Your task to perform on an android device: allow cookies in the chrome app Image 0: 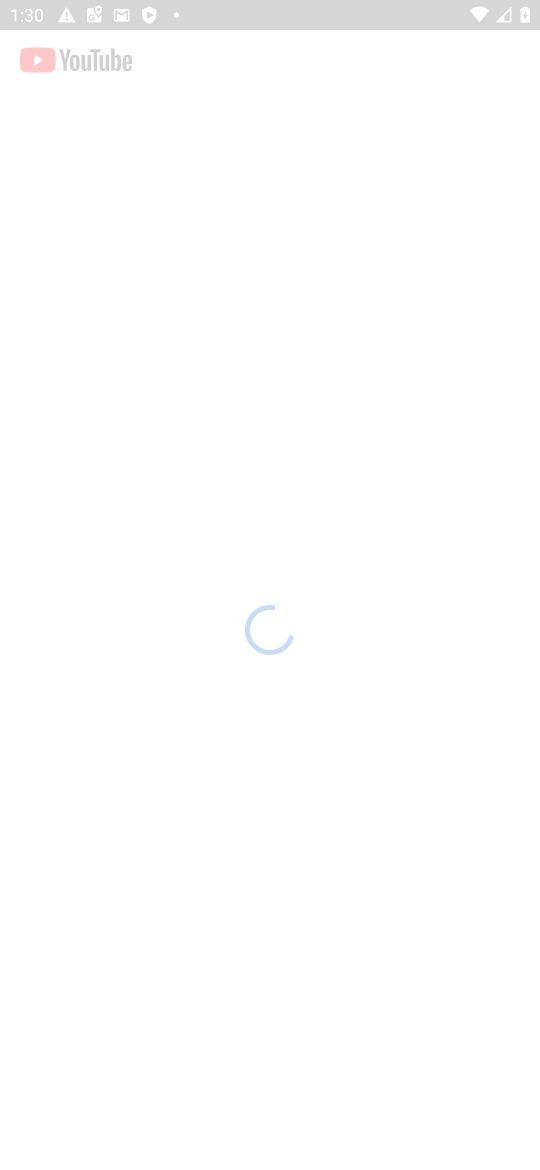
Step 0: press home button
Your task to perform on an android device: allow cookies in the chrome app Image 1: 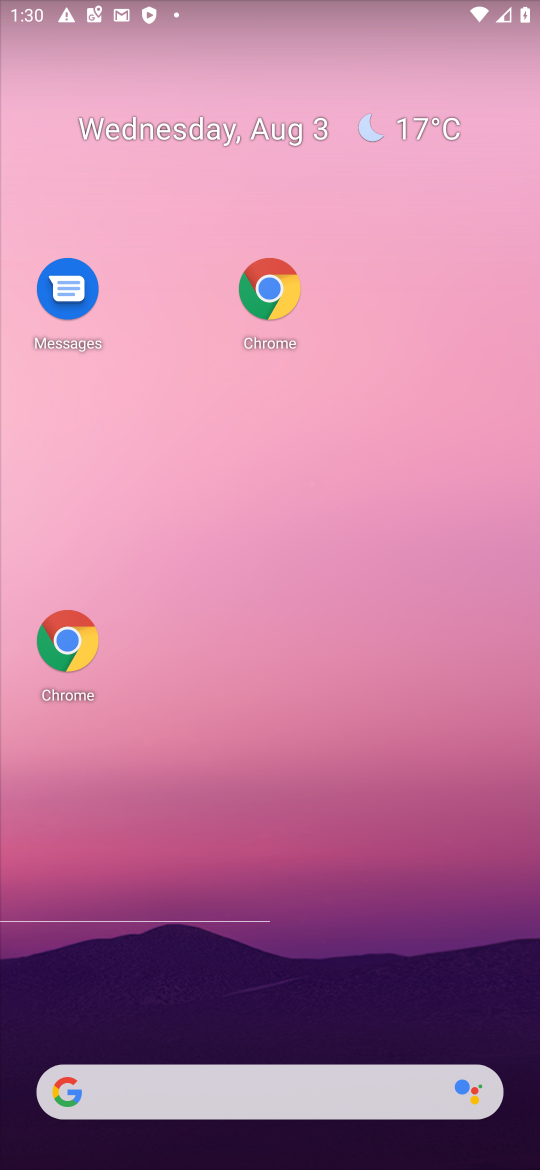
Step 1: click (52, 625)
Your task to perform on an android device: allow cookies in the chrome app Image 2: 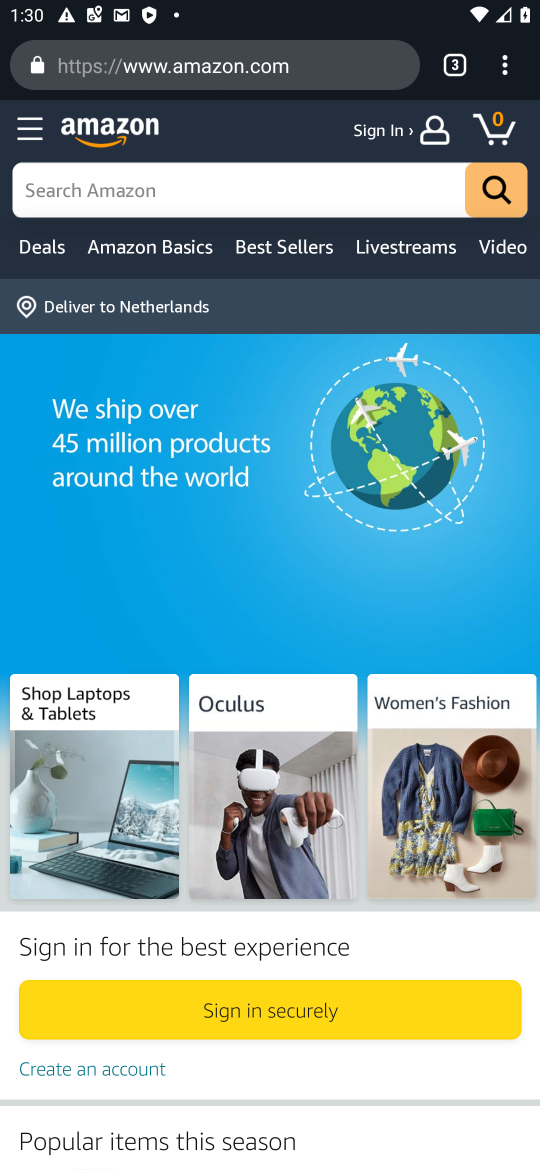
Step 2: click (500, 78)
Your task to perform on an android device: allow cookies in the chrome app Image 3: 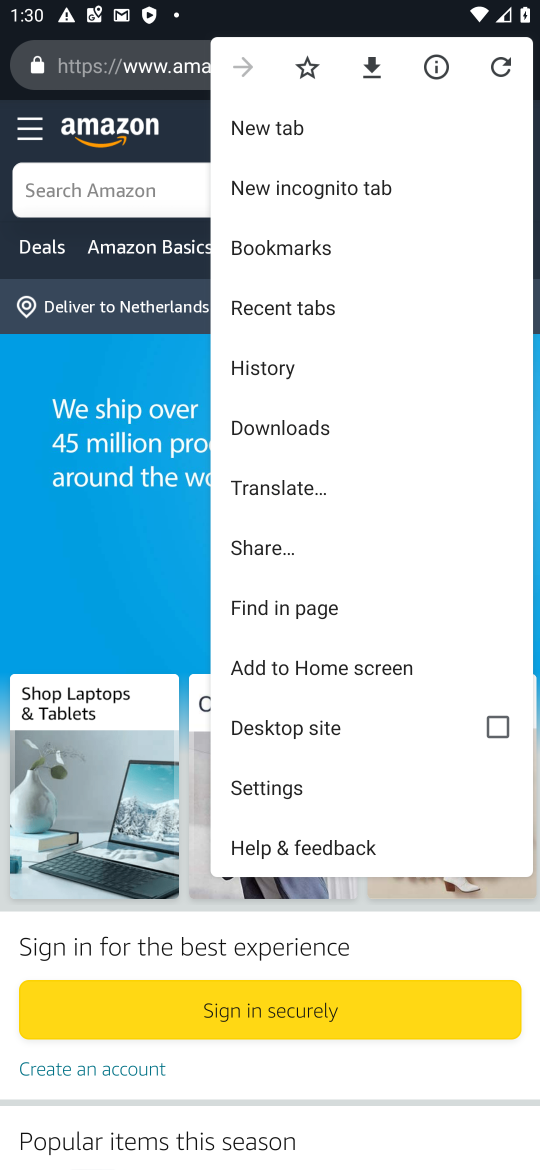
Step 3: click (334, 796)
Your task to perform on an android device: allow cookies in the chrome app Image 4: 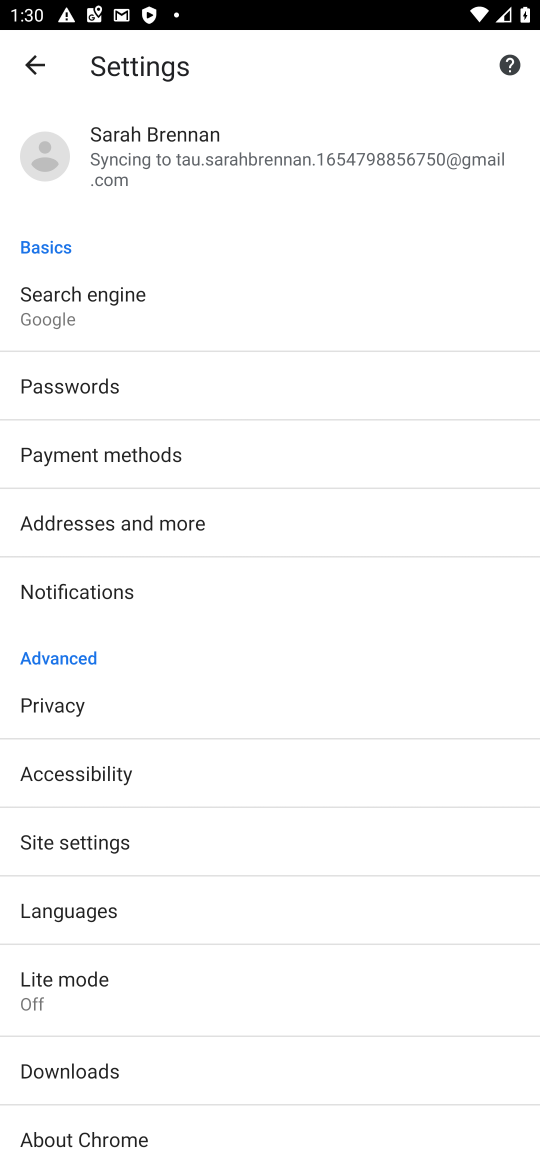
Step 4: click (119, 861)
Your task to perform on an android device: allow cookies in the chrome app Image 5: 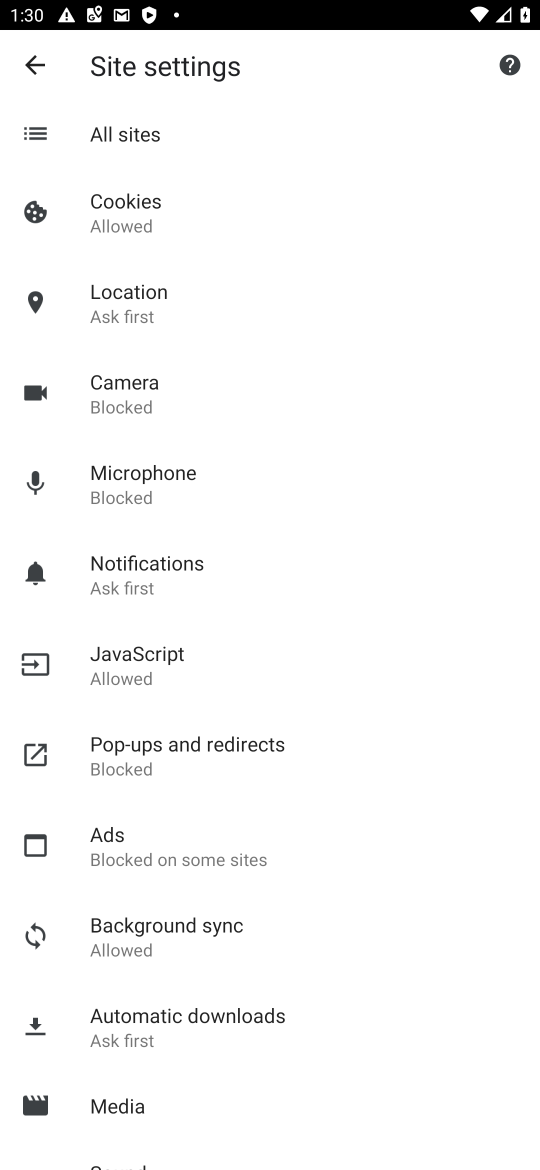
Step 5: click (245, 251)
Your task to perform on an android device: allow cookies in the chrome app Image 6: 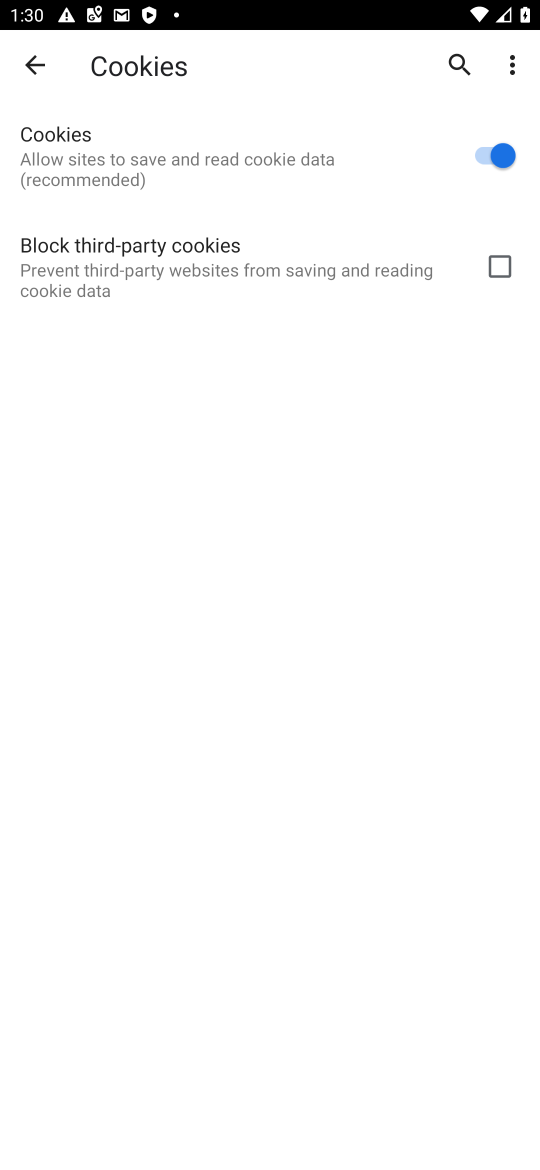
Step 6: click (485, 165)
Your task to perform on an android device: allow cookies in the chrome app Image 7: 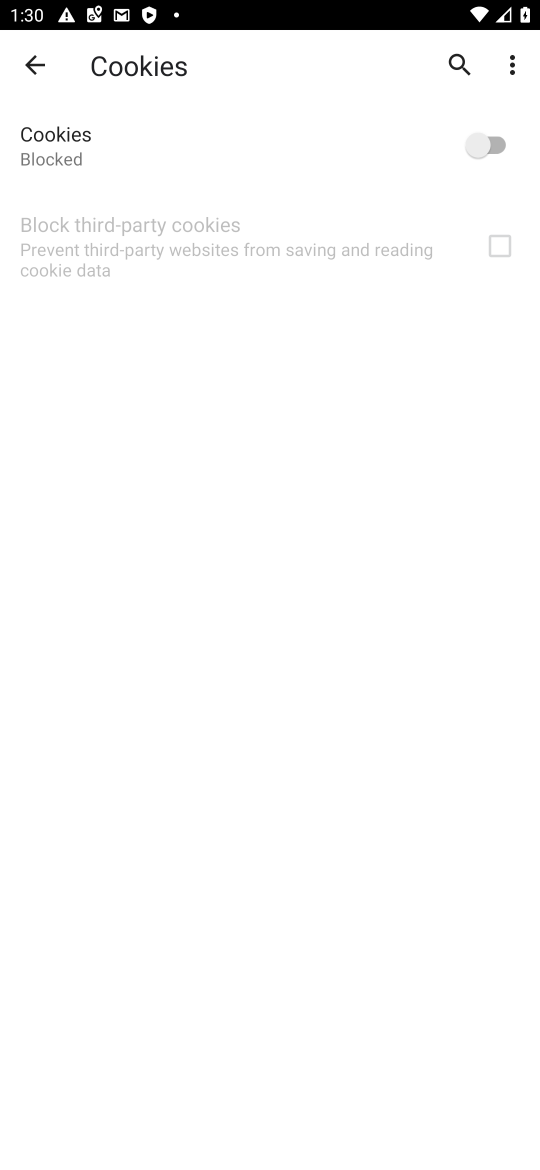
Step 7: task complete